Your task to perform on an android device: Go to sound settings Image 0: 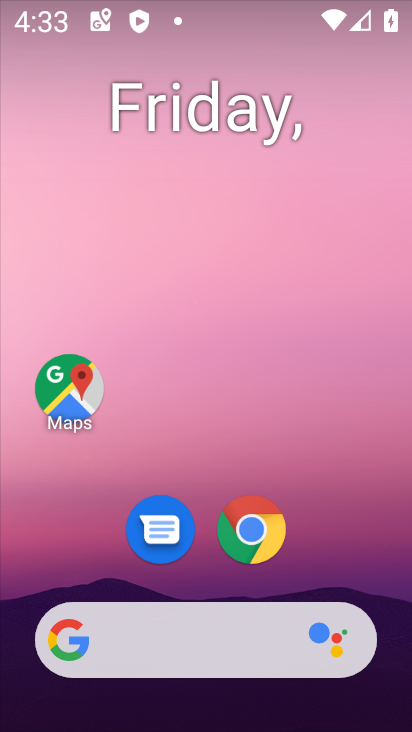
Step 0: drag from (301, 574) to (232, 172)
Your task to perform on an android device: Go to sound settings Image 1: 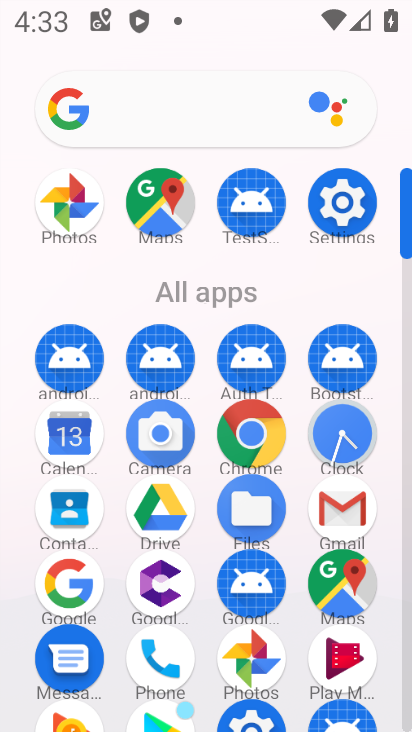
Step 1: click (333, 197)
Your task to perform on an android device: Go to sound settings Image 2: 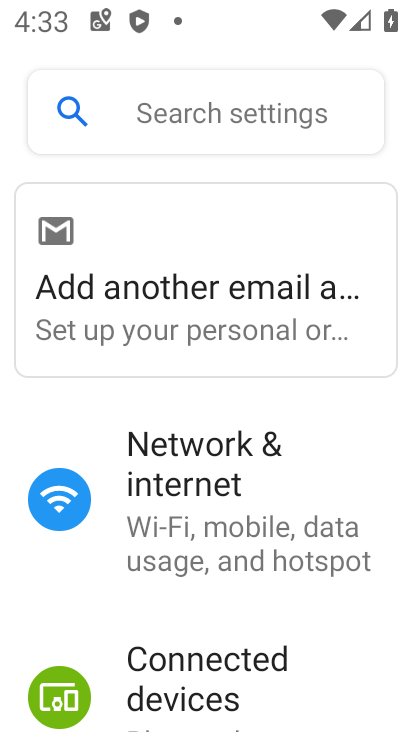
Step 2: drag from (237, 632) to (220, 281)
Your task to perform on an android device: Go to sound settings Image 3: 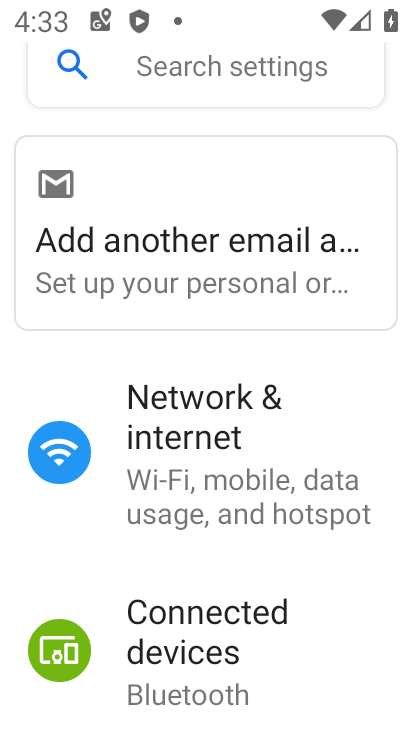
Step 3: click (275, 279)
Your task to perform on an android device: Go to sound settings Image 4: 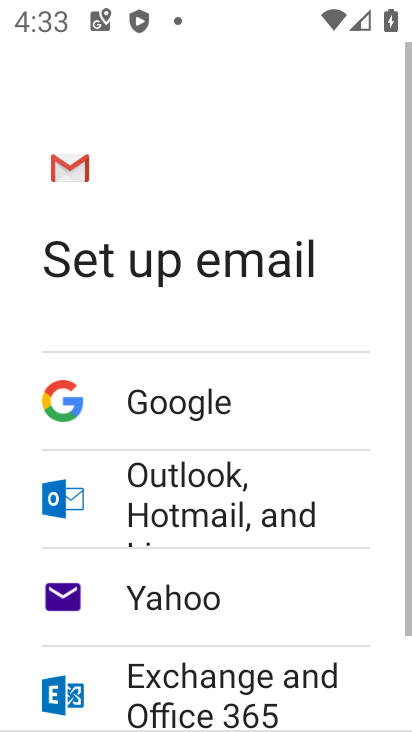
Step 4: press back button
Your task to perform on an android device: Go to sound settings Image 5: 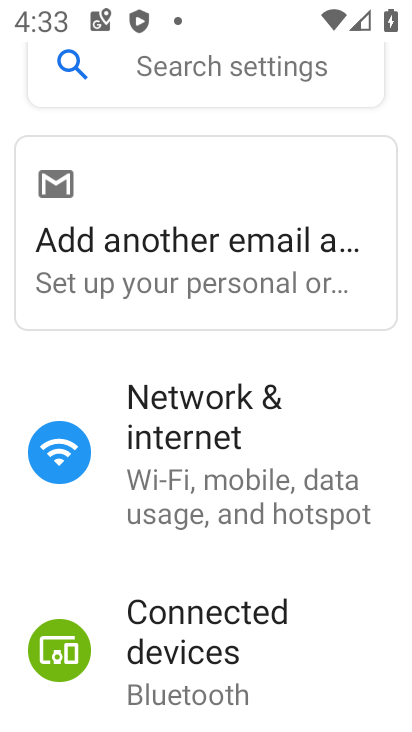
Step 5: drag from (181, 663) to (196, 307)
Your task to perform on an android device: Go to sound settings Image 6: 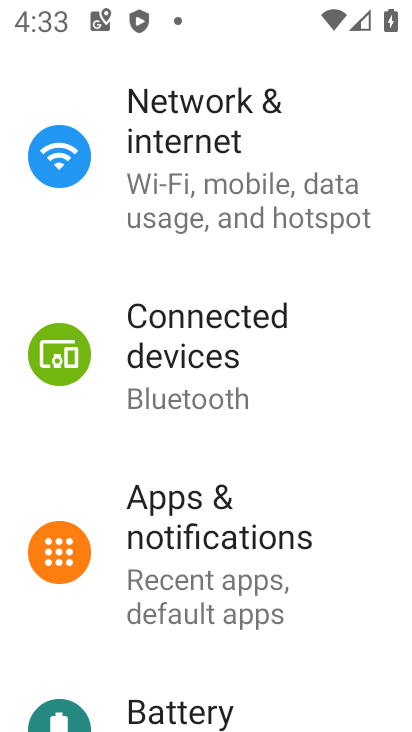
Step 6: drag from (264, 563) to (278, 267)
Your task to perform on an android device: Go to sound settings Image 7: 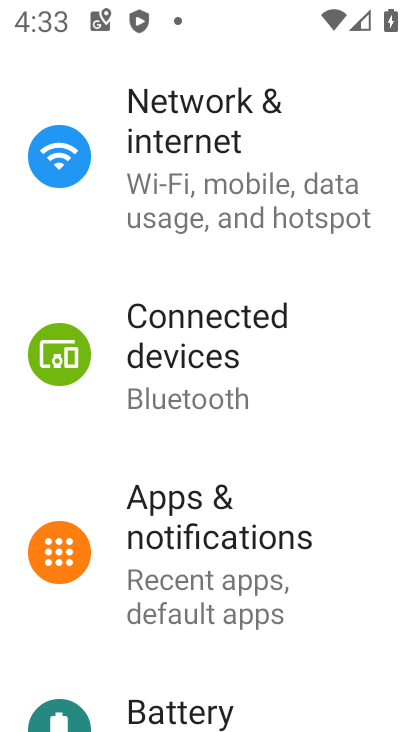
Step 7: drag from (218, 679) to (231, 254)
Your task to perform on an android device: Go to sound settings Image 8: 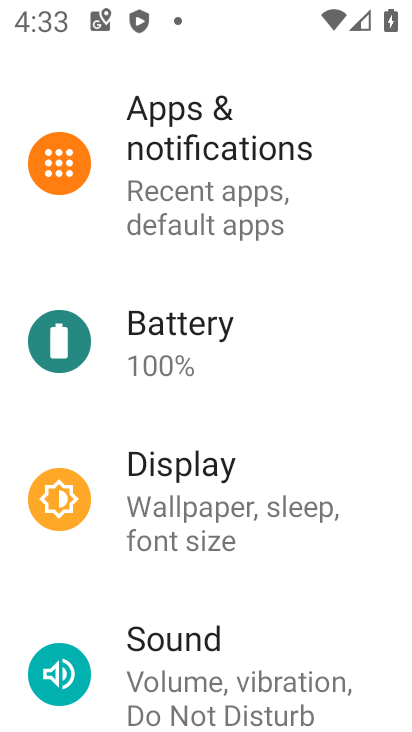
Step 8: click (205, 706)
Your task to perform on an android device: Go to sound settings Image 9: 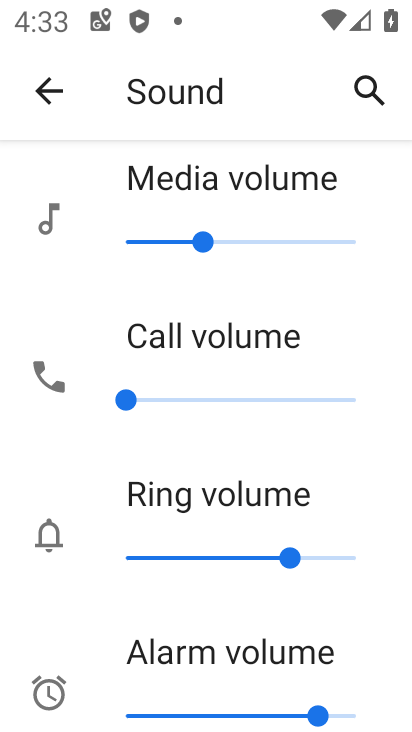
Step 9: task complete